Your task to perform on an android device: Go to Wikipedia Image 0: 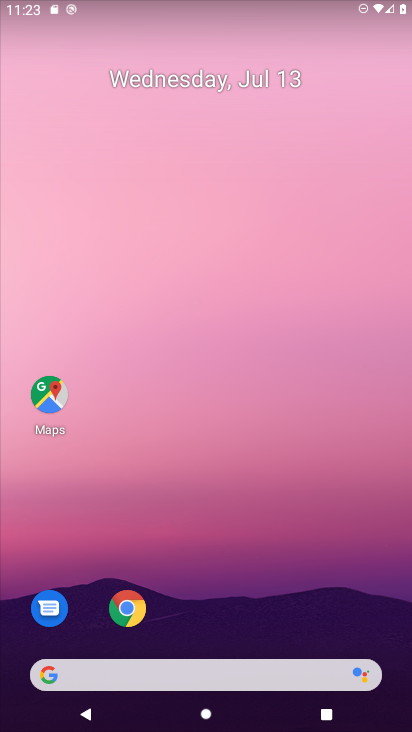
Step 0: click (125, 606)
Your task to perform on an android device: Go to Wikipedia Image 1: 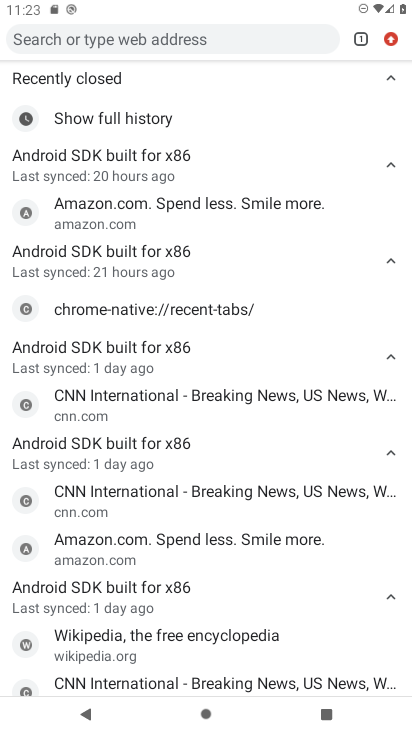
Step 1: click (201, 33)
Your task to perform on an android device: Go to Wikipedia Image 2: 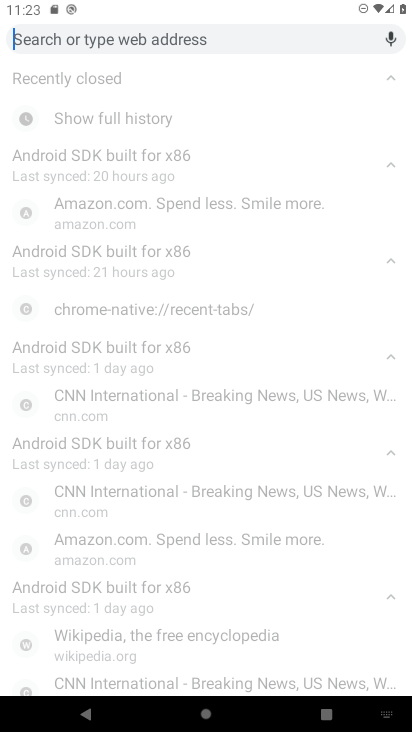
Step 2: type "wikipedia"
Your task to perform on an android device: Go to Wikipedia Image 3: 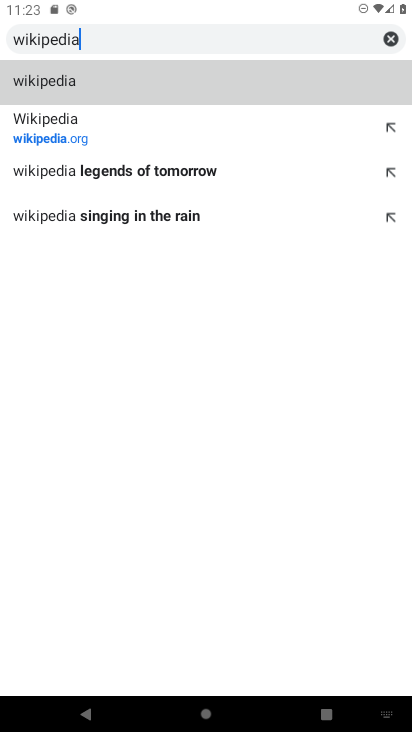
Step 3: click (130, 86)
Your task to perform on an android device: Go to Wikipedia Image 4: 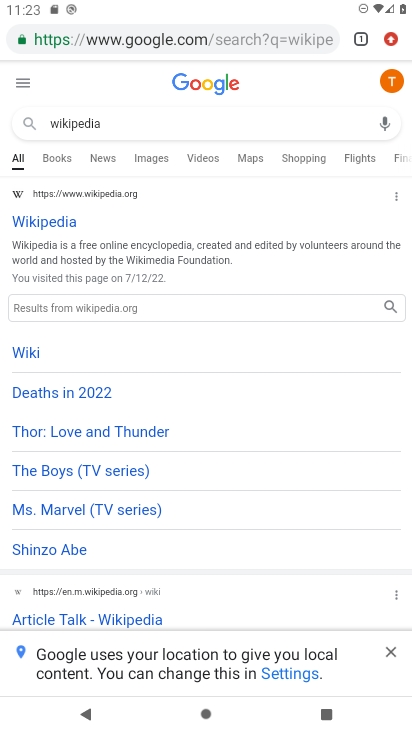
Step 4: click (33, 218)
Your task to perform on an android device: Go to Wikipedia Image 5: 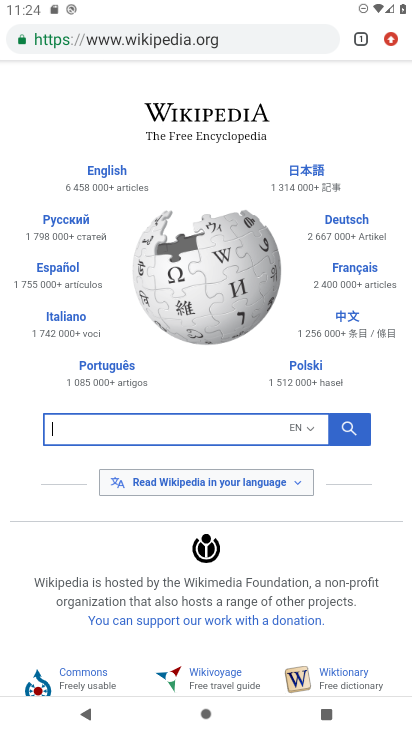
Step 5: task complete